Your task to perform on an android device: make emails show in primary in the gmail app Image 0: 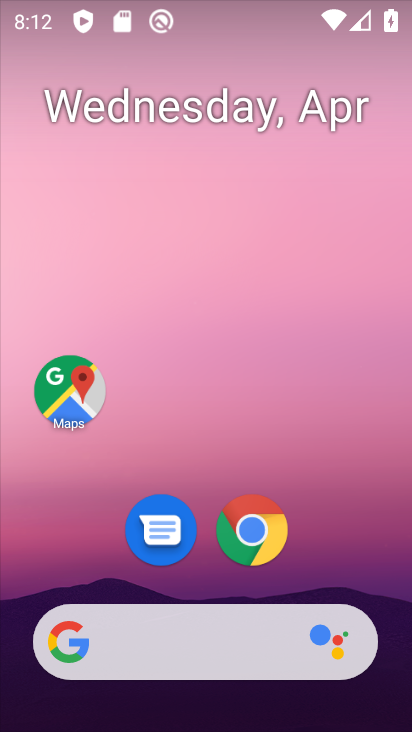
Step 0: drag from (390, 603) to (256, 306)
Your task to perform on an android device: make emails show in primary in the gmail app Image 1: 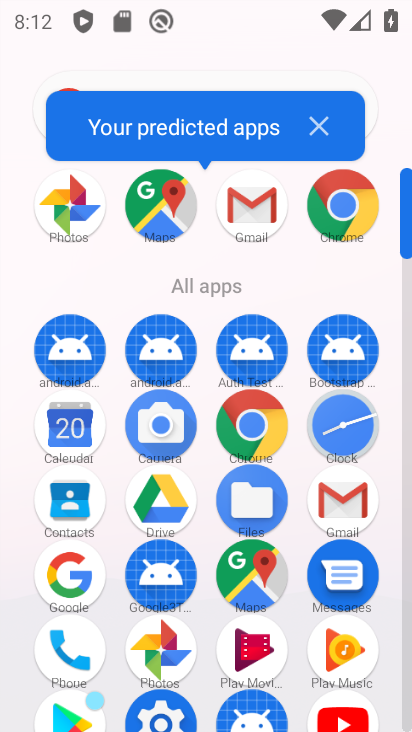
Step 1: click (241, 230)
Your task to perform on an android device: make emails show in primary in the gmail app Image 2: 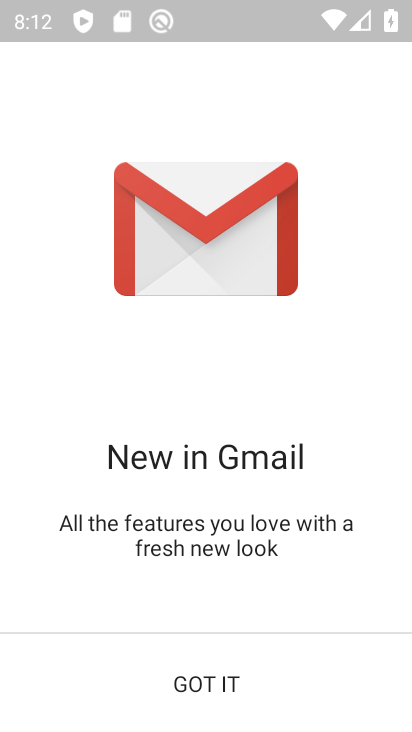
Step 2: click (206, 685)
Your task to perform on an android device: make emails show in primary in the gmail app Image 3: 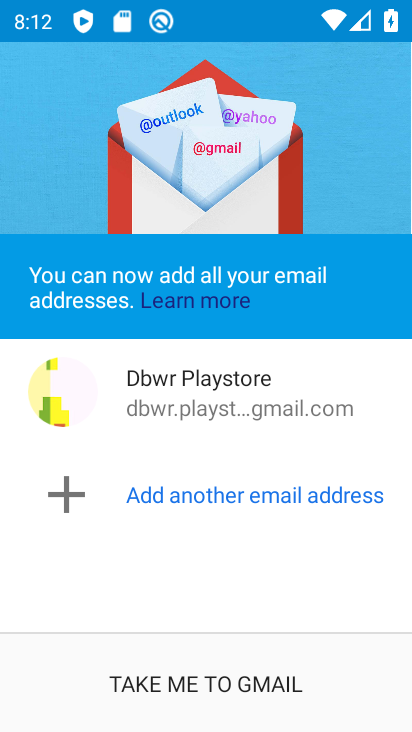
Step 3: click (206, 685)
Your task to perform on an android device: make emails show in primary in the gmail app Image 4: 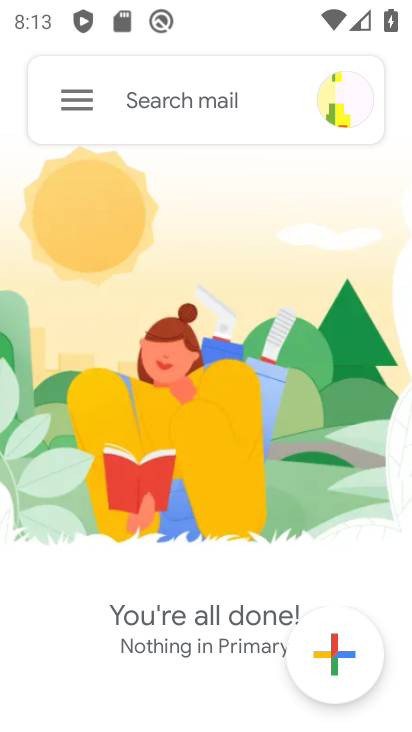
Step 4: click (78, 108)
Your task to perform on an android device: make emails show in primary in the gmail app Image 5: 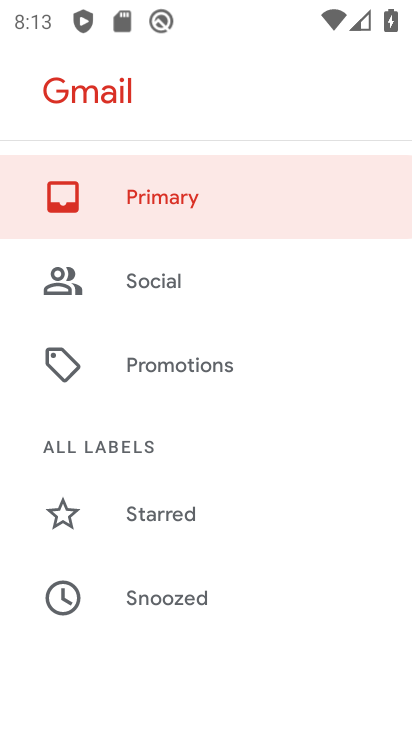
Step 5: drag from (249, 599) to (258, 188)
Your task to perform on an android device: make emails show in primary in the gmail app Image 6: 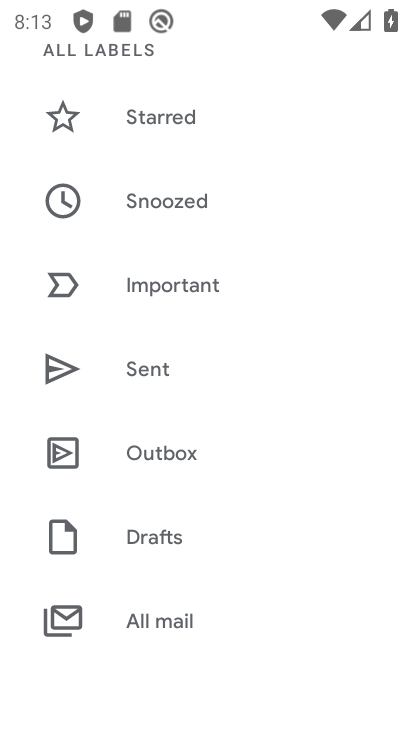
Step 6: drag from (245, 558) to (284, 152)
Your task to perform on an android device: make emails show in primary in the gmail app Image 7: 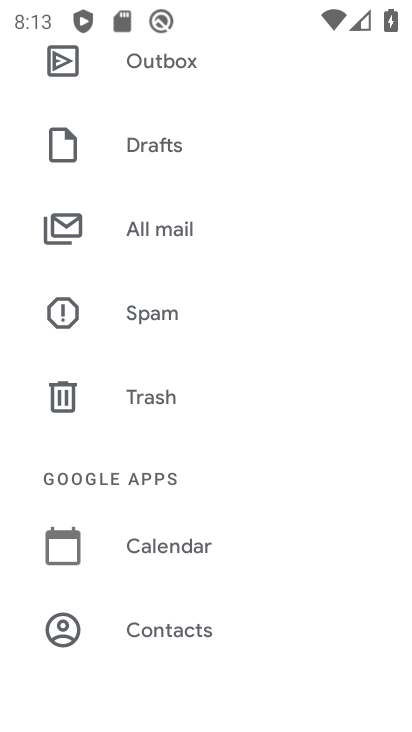
Step 7: drag from (265, 590) to (253, 139)
Your task to perform on an android device: make emails show in primary in the gmail app Image 8: 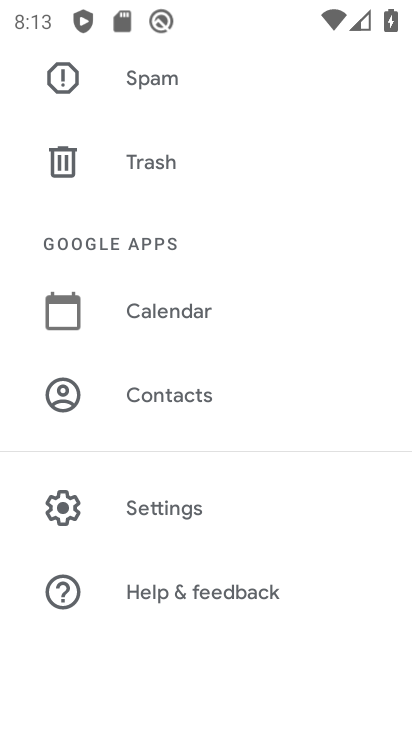
Step 8: click (181, 495)
Your task to perform on an android device: make emails show in primary in the gmail app Image 9: 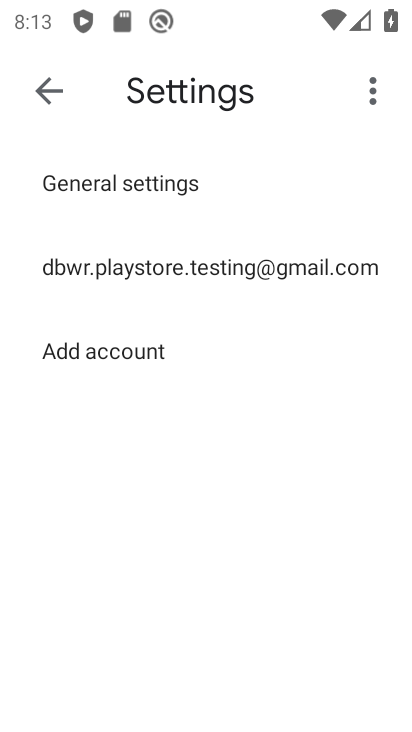
Step 9: click (288, 276)
Your task to perform on an android device: make emails show in primary in the gmail app Image 10: 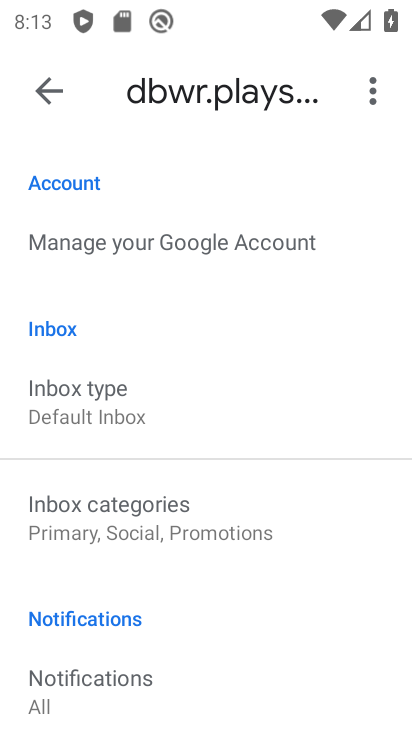
Step 10: click (223, 401)
Your task to perform on an android device: make emails show in primary in the gmail app Image 11: 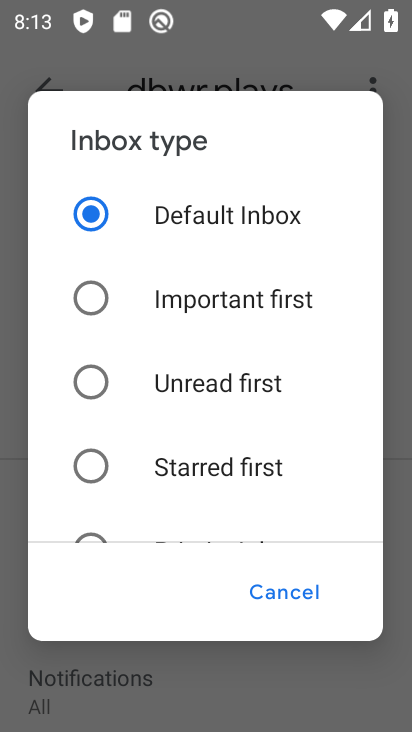
Step 11: click (314, 619)
Your task to perform on an android device: make emails show in primary in the gmail app Image 12: 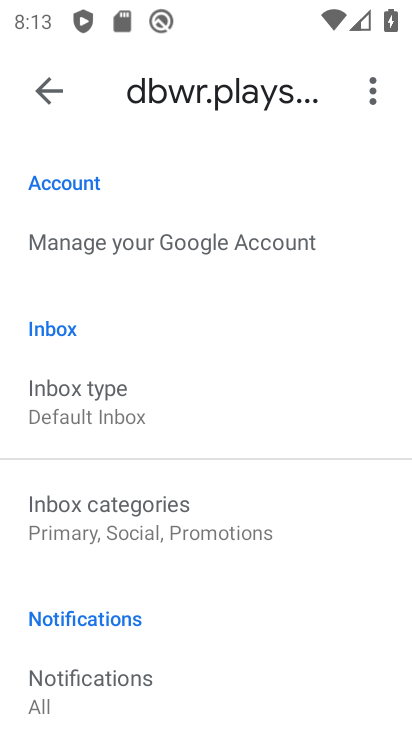
Step 12: task complete